Your task to perform on an android device: Open Yahoo.com Image 0: 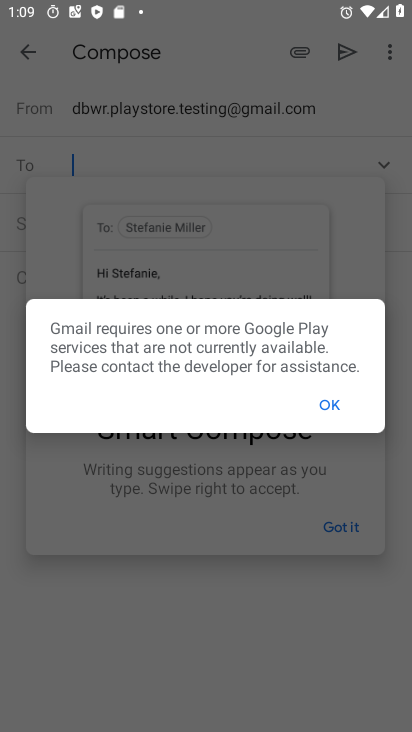
Step 0: press home button
Your task to perform on an android device: Open Yahoo.com Image 1: 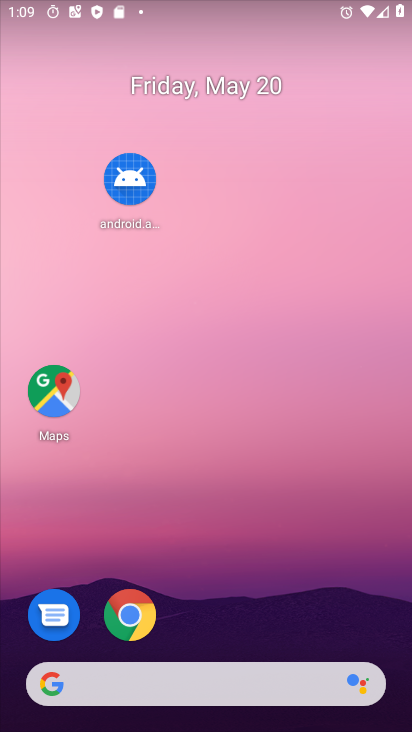
Step 1: click (135, 595)
Your task to perform on an android device: Open Yahoo.com Image 2: 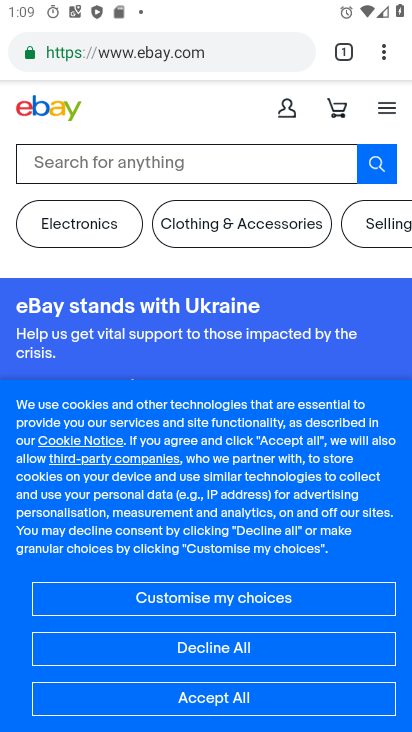
Step 2: click (341, 52)
Your task to perform on an android device: Open Yahoo.com Image 3: 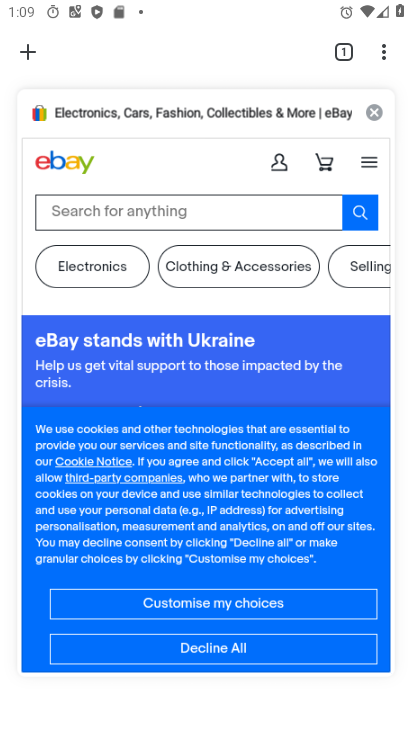
Step 3: click (376, 110)
Your task to perform on an android device: Open Yahoo.com Image 4: 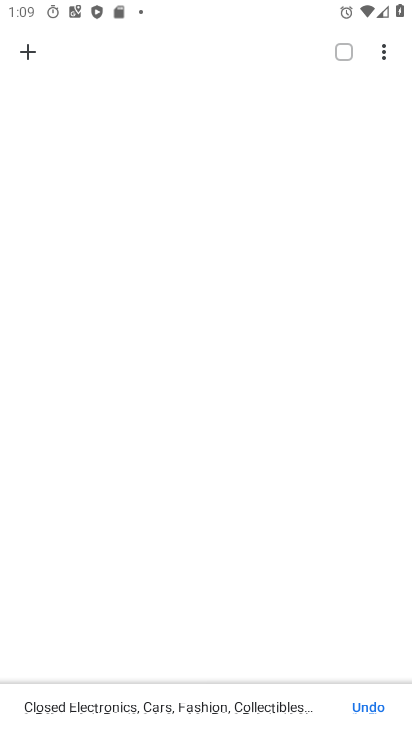
Step 4: click (30, 53)
Your task to perform on an android device: Open Yahoo.com Image 5: 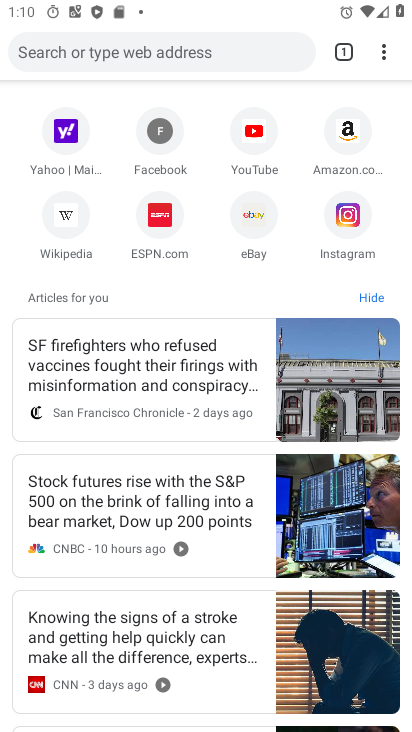
Step 5: click (55, 128)
Your task to perform on an android device: Open Yahoo.com Image 6: 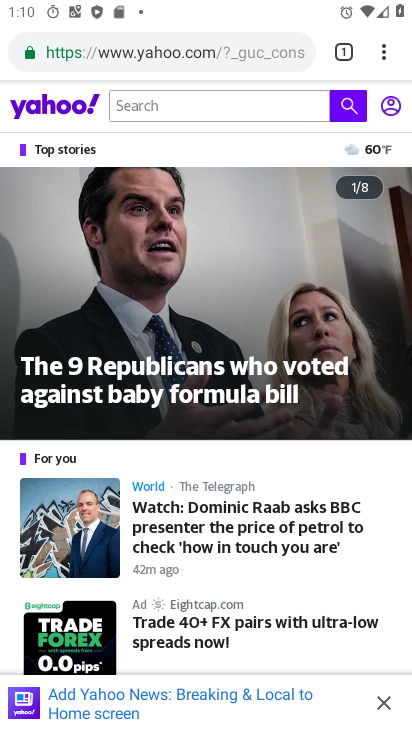
Step 6: task complete